Your task to perform on an android device: open app "Microsoft Authenticator" (install if not already installed) and enter user name: "Cornell@yahoo.com" and password: "bothersome" Image 0: 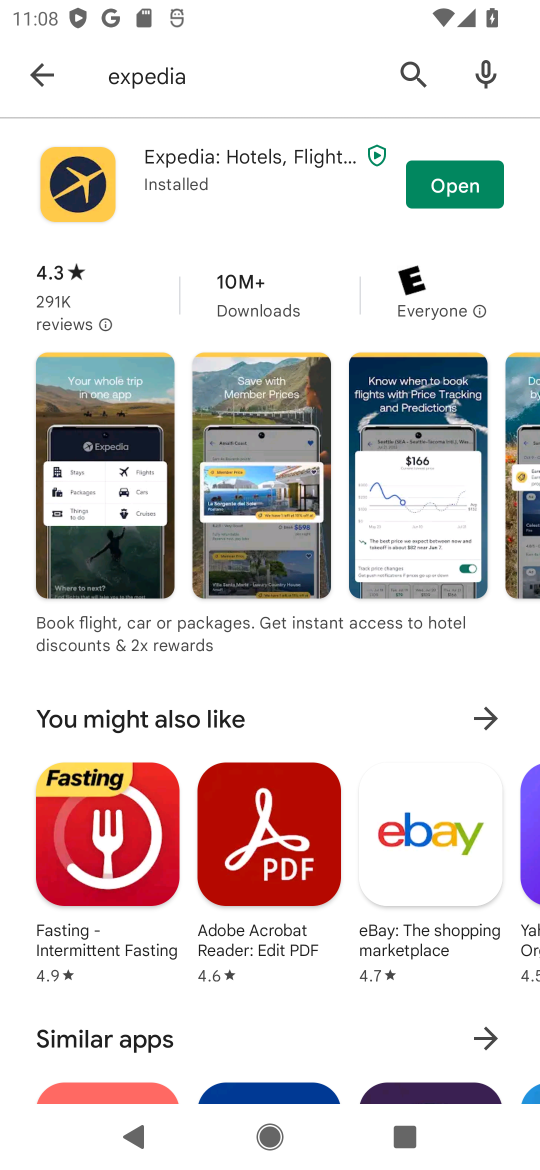
Step 0: click (404, 61)
Your task to perform on an android device: open app "Microsoft Authenticator" (install if not already installed) and enter user name: "Cornell@yahoo.com" and password: "bothersome" Image 1: 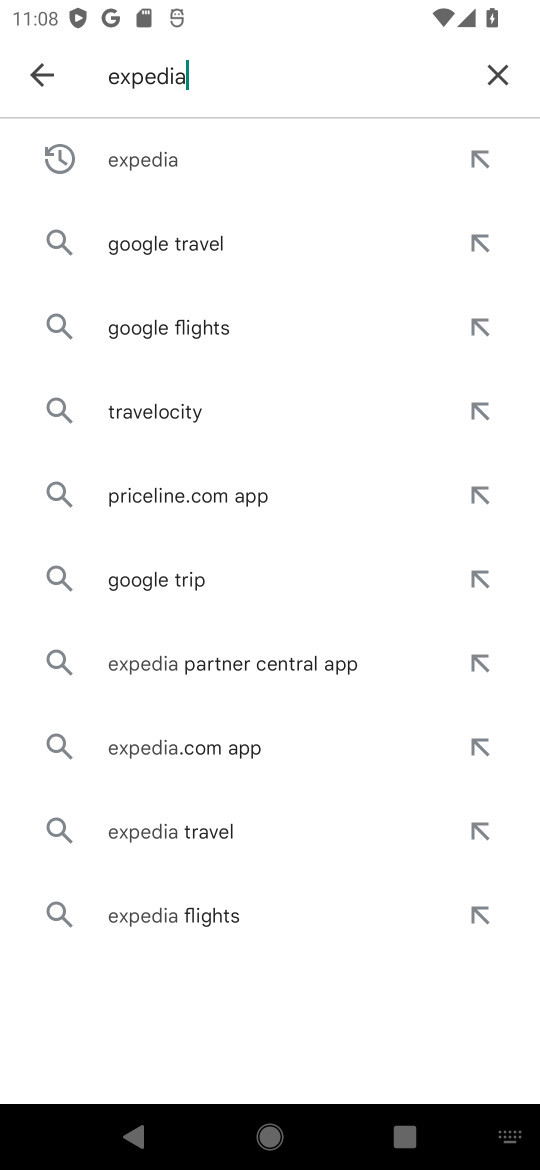
Step 1: click (512, 59)
Your task to perform on an android device: open app "Microsoft Authenticator" (install if not already installed) and enter user name: "Cornell@yahoo.com" and password: "bothersome" Image 2: 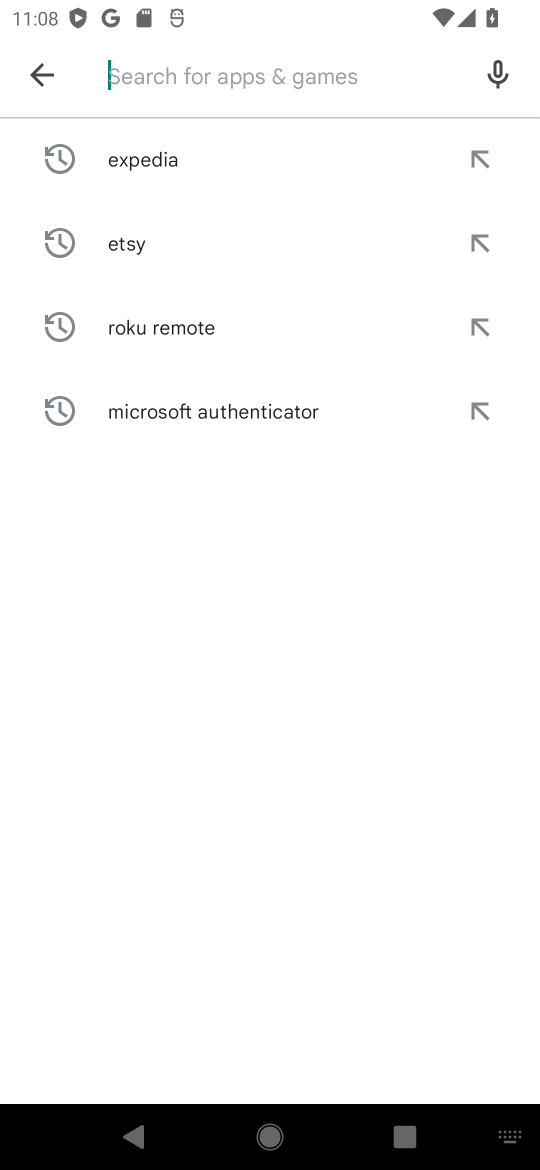
Step 2: click (166, 82)
Your task to perform on an android device: open app "Microsoft Authenticator" (install if not already installed) and enter user name: "Cornell@yahoo.com" and password: "bothersome" Image 3: 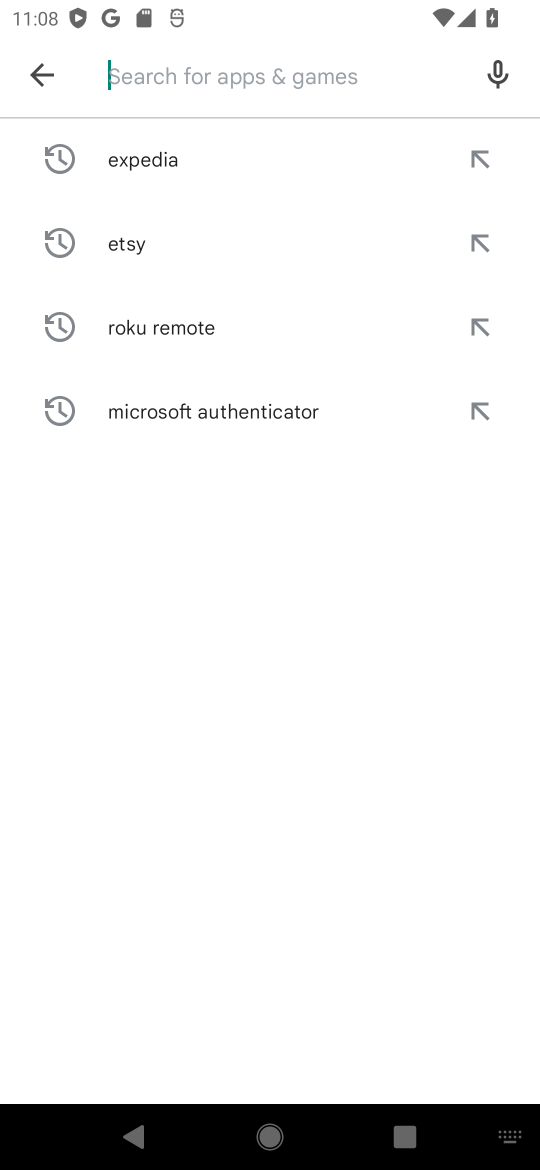
Step 3: type "Microsoft Authenticator"
Your task to perform on an android device: open app "Microsoft Authenticator" (install if not already installed) and enter user name: "Cornell@yahoo.com" and password: "bothersome" Image 4: 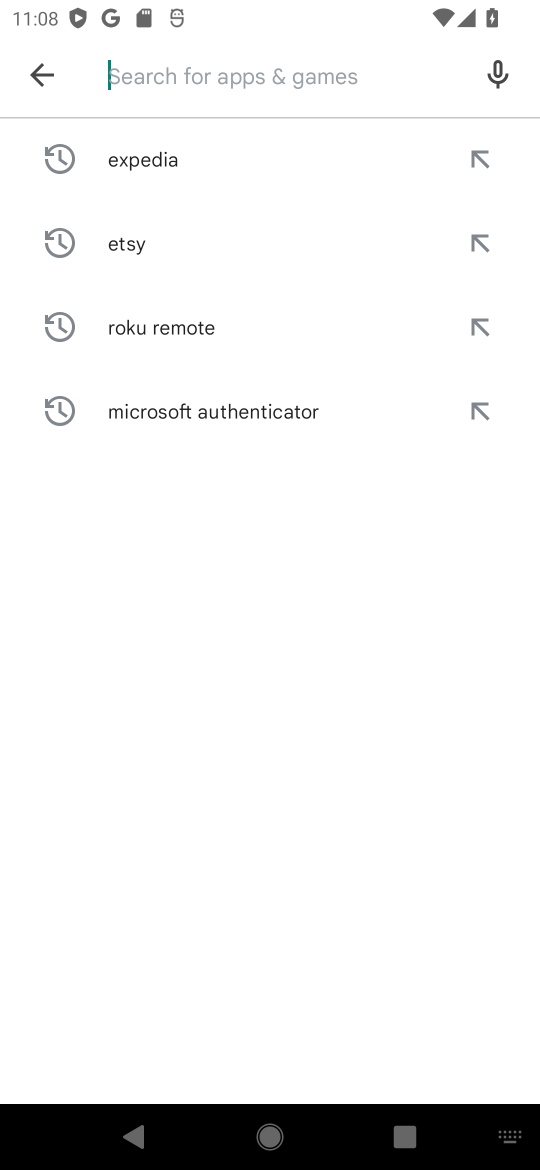
Step 4: click (251, 655)
Your task to perform on an android device: open app "Microsoft Authenticator" (install if not already installed) and enter user name: "Cornell@yahoo.com" and password: "bothersome" Image 5: 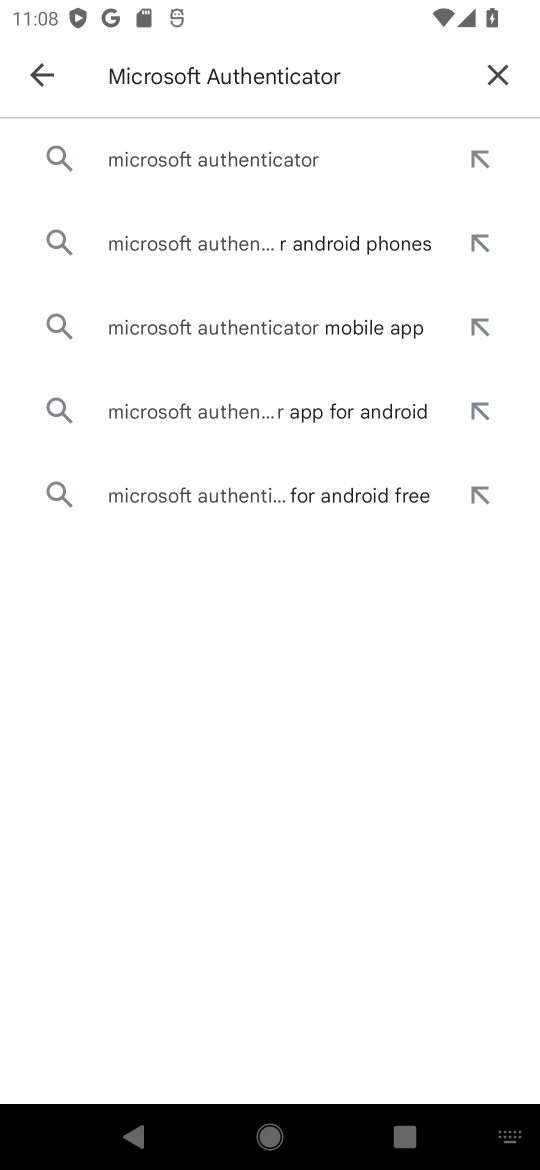
Step 5: click (197, 140)
Your task to perform on an android device: open app "Microsoft Authenticator" (install if not already installed) and enter user name: "Cornell@yahoo.com" and password: "bothersome" Image 6: 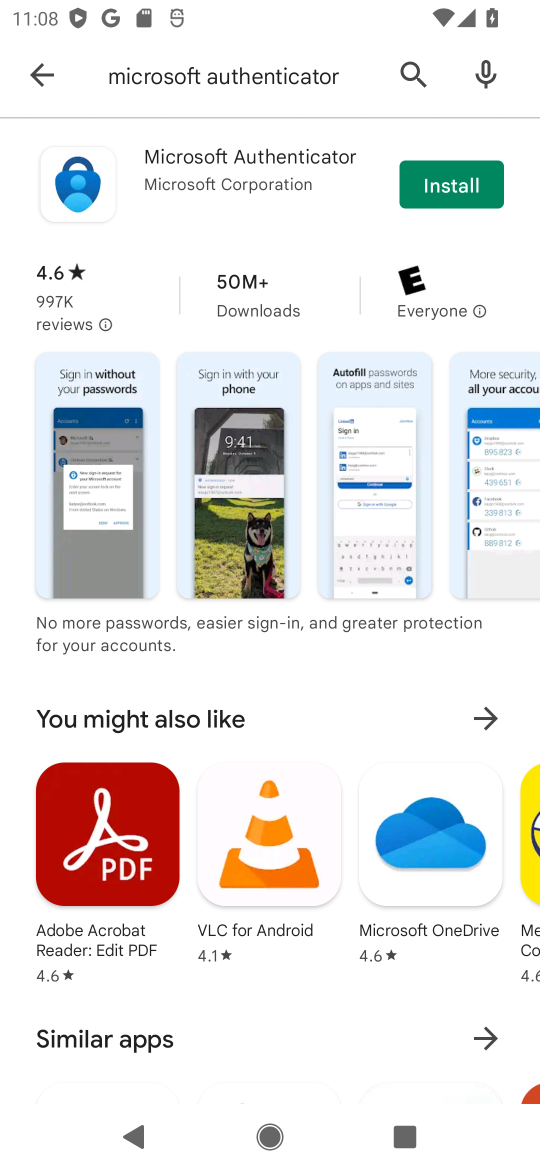
Step 6: click (429, 190)
Your task to perform on an android device: open app "Microsoft Authenticator" (install if not already installed) and enter user name: "Cornell@yahoo.com" and password: "bothersome" Image 7: 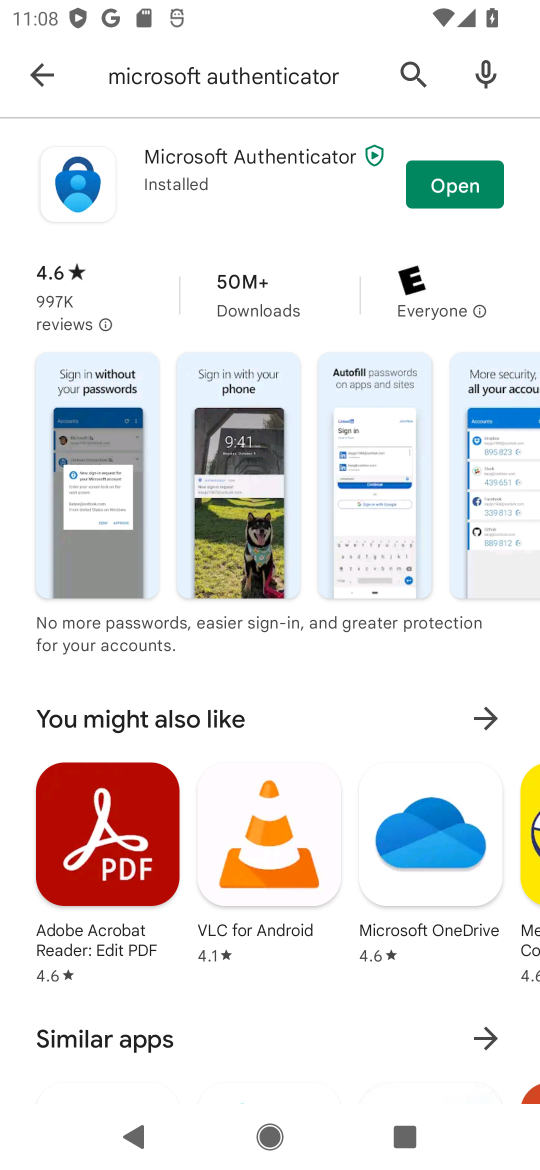
Step 7: click (454, 178)
Your task to perform on an android device: open app "Microsoft Authenticator" (install if not already installed) and enter user name: "Cornell@yahoo.com" and password: "bothersome" Image 8: 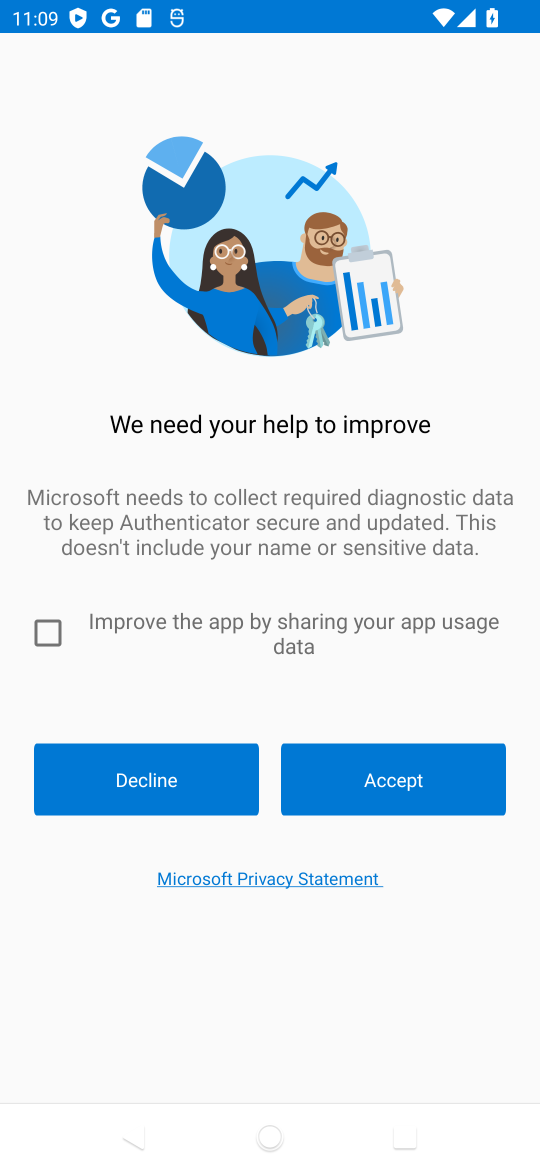
Step 8: click (27, 622)
Your task to perform on an android device: open app "Microsoft Authenticator" (install if not already installed) and enter user name: "Cornell@yahoo.com" and password: "bothersome" Image 9: 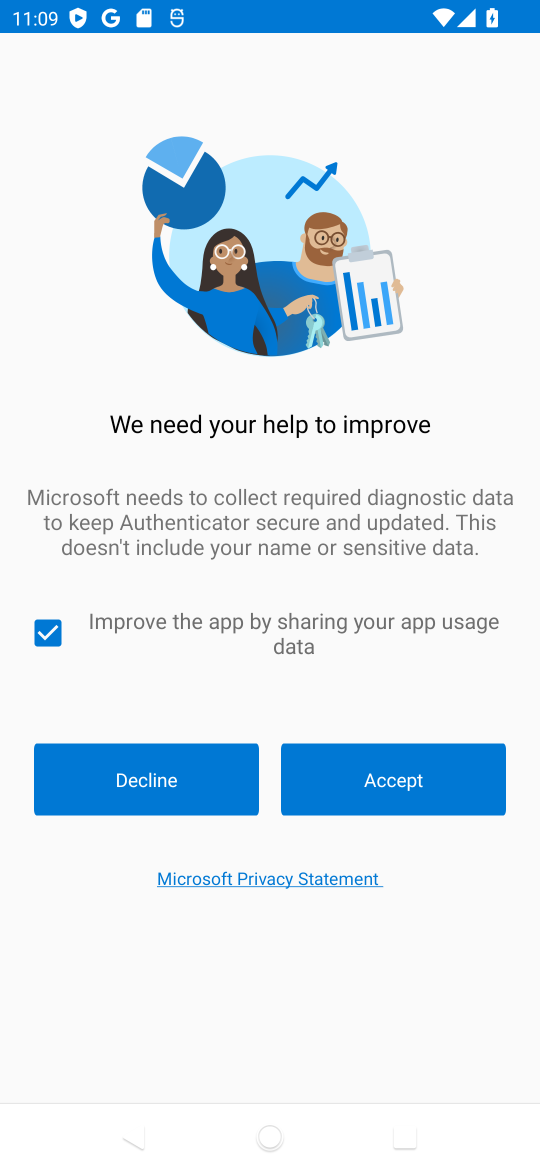
Step 9: click (376, 776)
Your task to perform on an android device: open app "Microsoft Authenticator" (install if not already installed) and enter user name: "Cornell@yahoo.com" and password: "bothersome" Image 10: 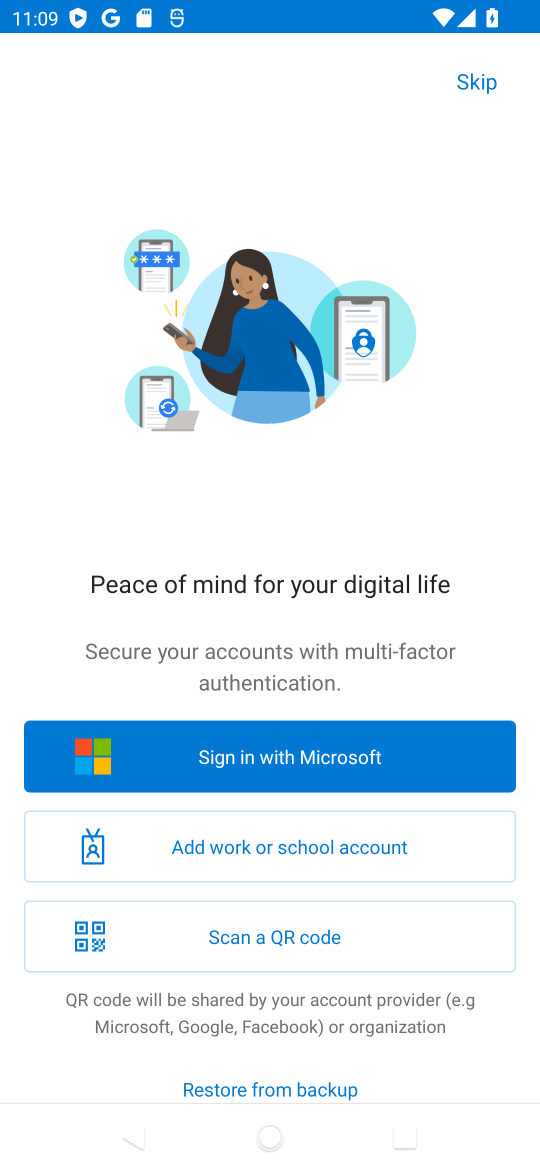
Step 10: click (376, 776)
Your task to perform on an android device: open app "Microsoft Authenticator" (install if not already installed) and enter user name: "Cornell@yahoo.com" and password: "bothersome" Image 11: 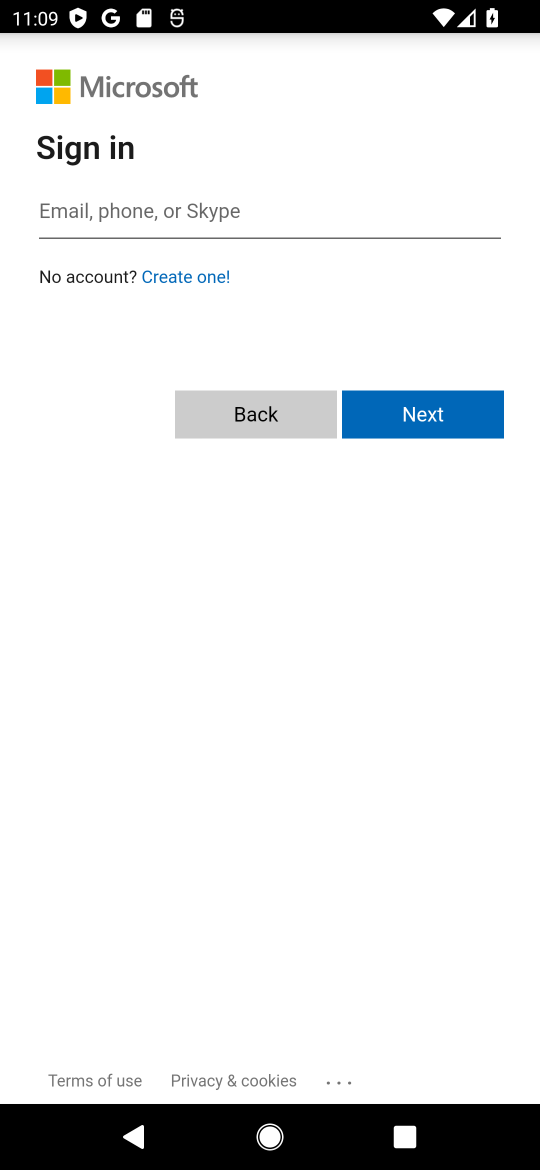
Step 11: click (257, 223)
Your task to perform on an android device: open app "Microsoft Authenticator" (install if not already installed) and enter user name: "Cornell@yahoo.com" and password: "bothersome" Image 12: 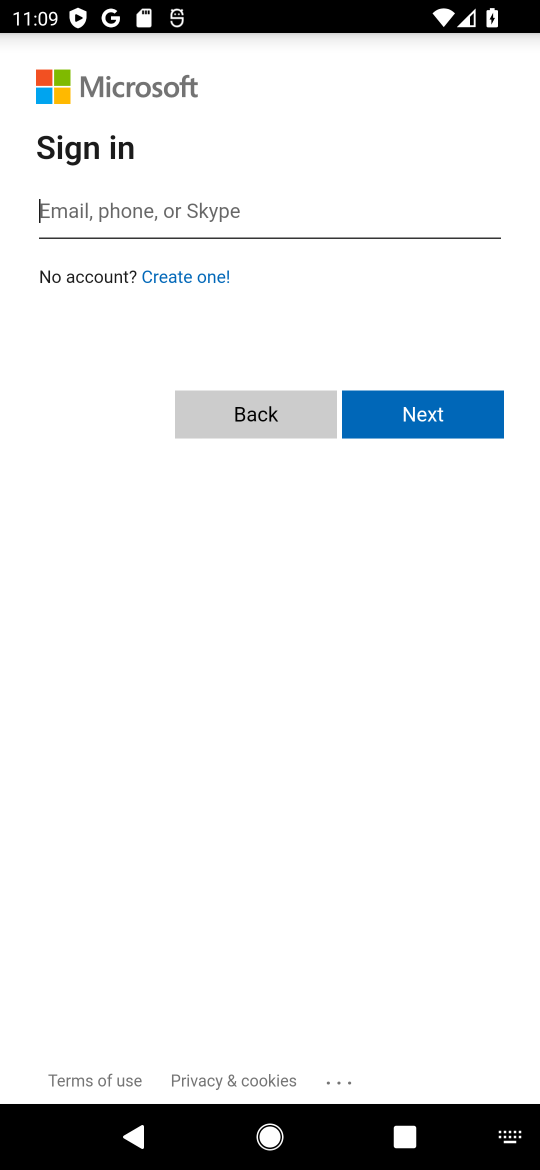
Step 12: type "Cornell@yahoo.com"
Your task to perform on an android device: open app "Microsoft Authenticator" (install if not already installed) and enter user name: "Cornell@yahoo.com" and password: "bothersome" Image 13: 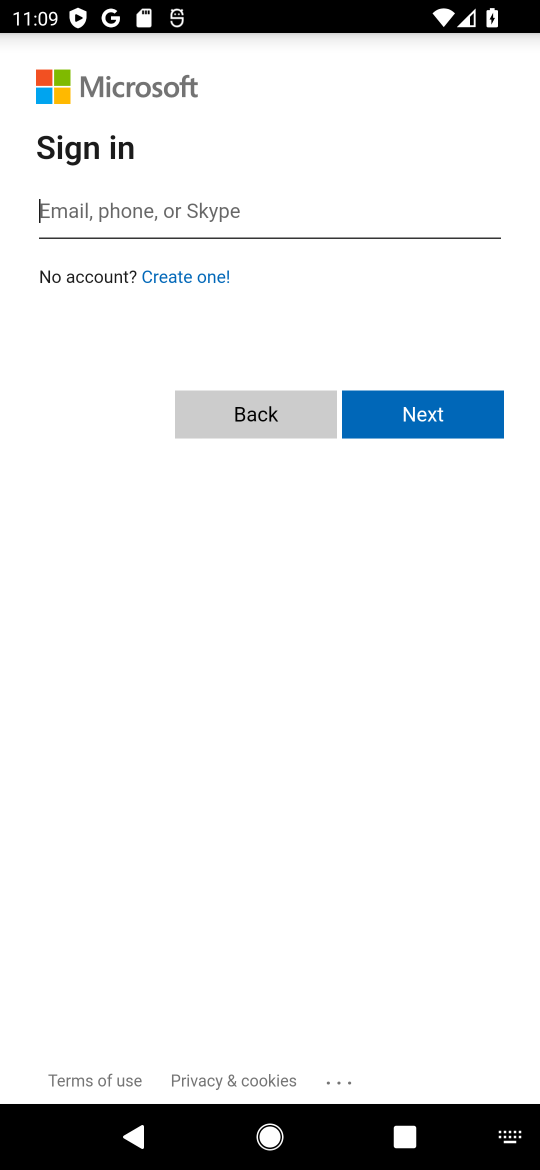
Step 13: click (276, 808)
Your task to perform on an android device: open app "Microsoft Authenticator" (install if not already installed) and enter user name: "Cornell@yahoo.com" and password: "bothersome" Image 14: 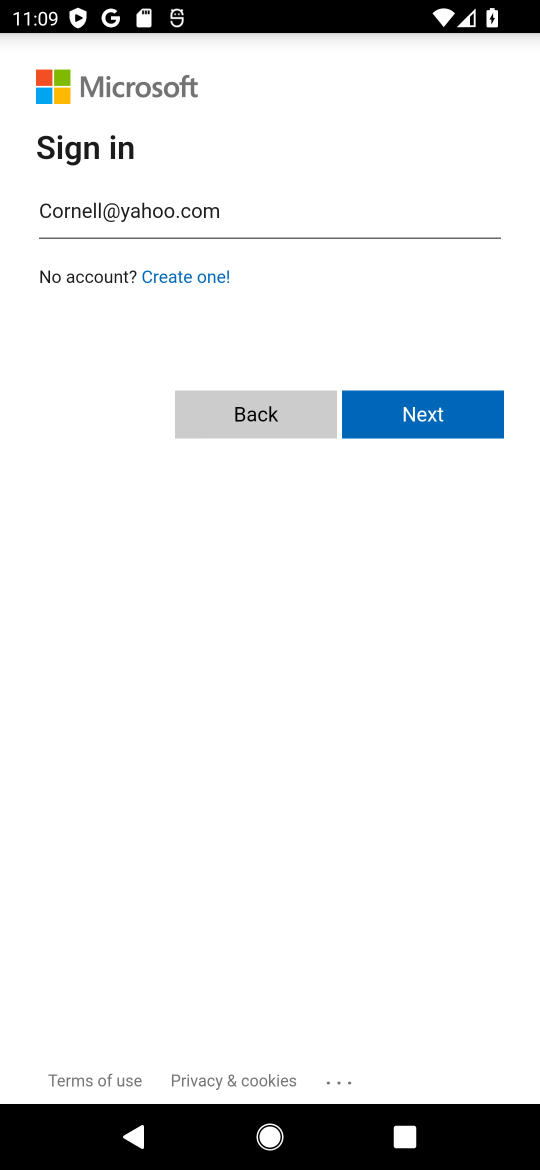
Step 14: click (433, 399)
Your task to perform on an android device: open app "Microsoft Authenticator" (install if not already installed) and enter user name: "Cornell@yahoo.com" and password: "bothersome" Image 15: 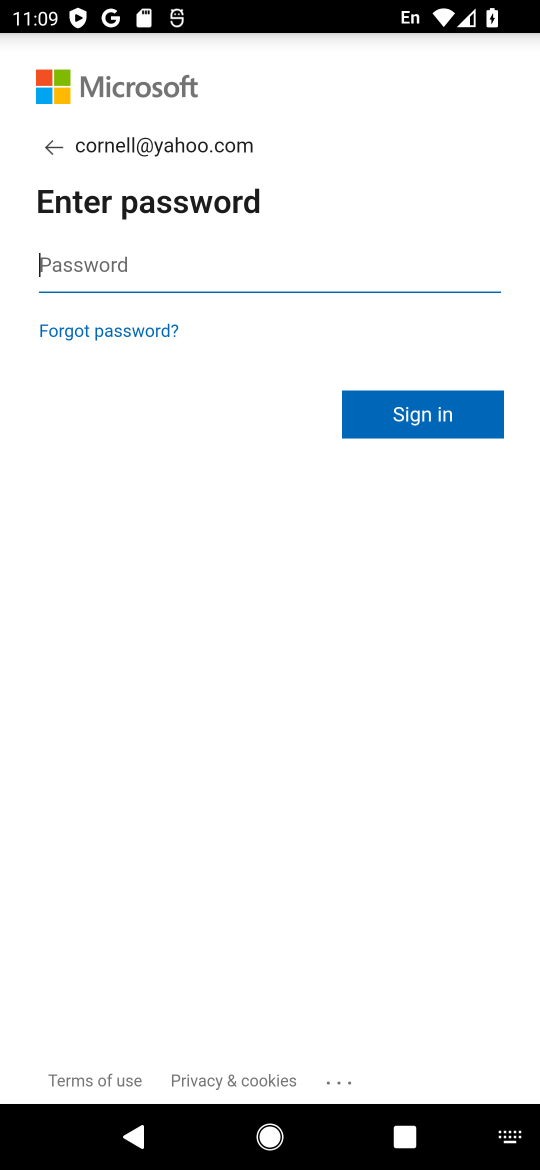
Step 15: click (134, 279)
Your task to perform on an android device: open app "Microsoft Authenticator" (install if not already installed) and enter user name: "Cornell@yahoo.com" and password: "bothersome" Image 16: 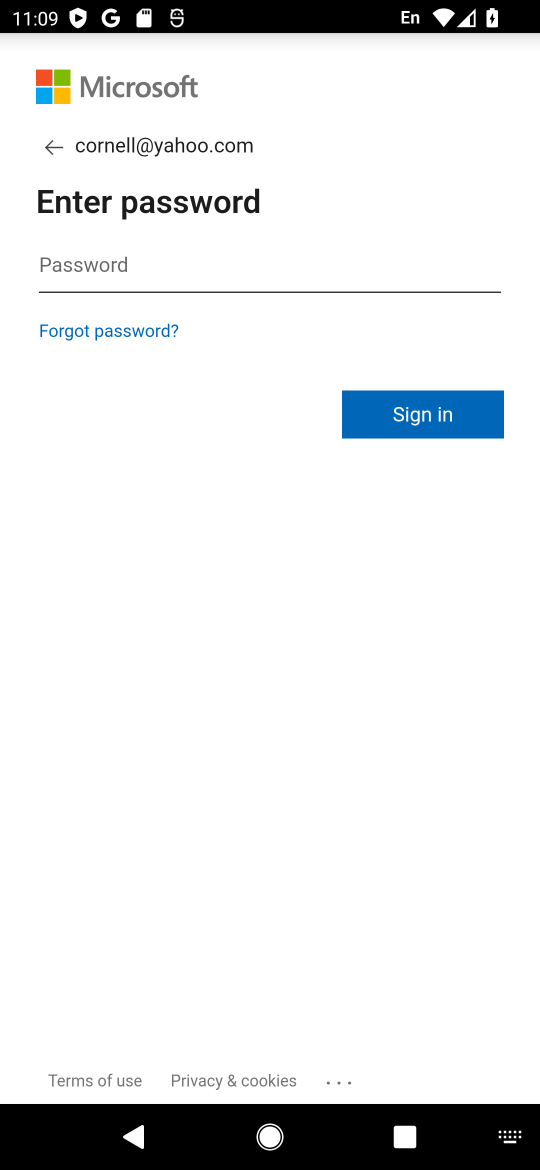
Step 16: type "bothersome"
Your task to perform on an android device: open app "Microsoft Authenticator" (install if not already installed) and enter user name: "Cornell@yahoo.com" and password: "bothersome" Image 17: 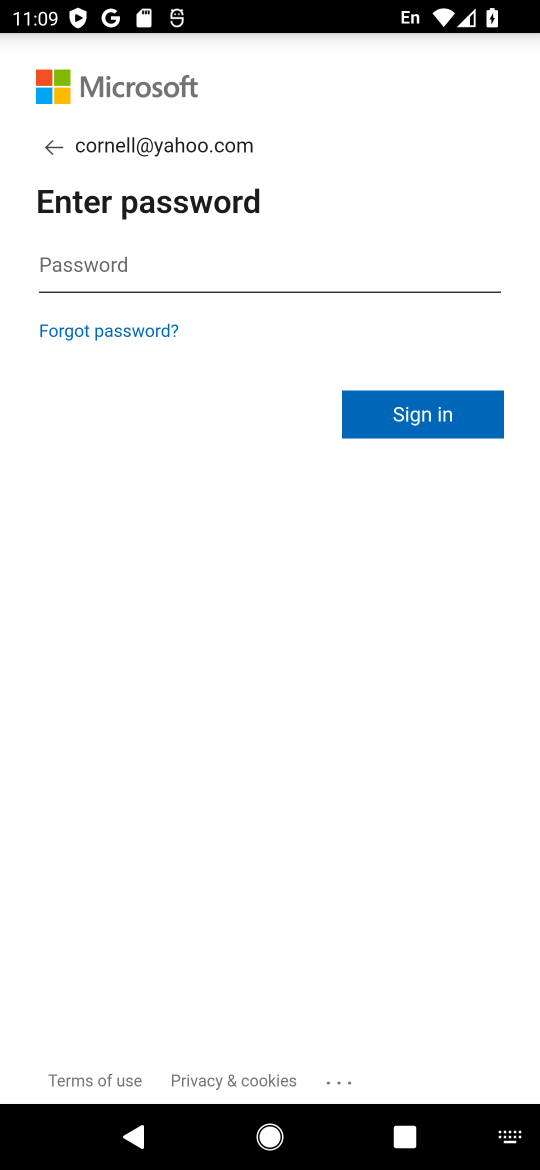
Step 17: click (147, 608)
Your task to perform on an android device: open app "Microsoft Authenticator" (install if not already installed) and enter user name: "Cornell@yahoo.com" and password: "bothersome" Image 18: 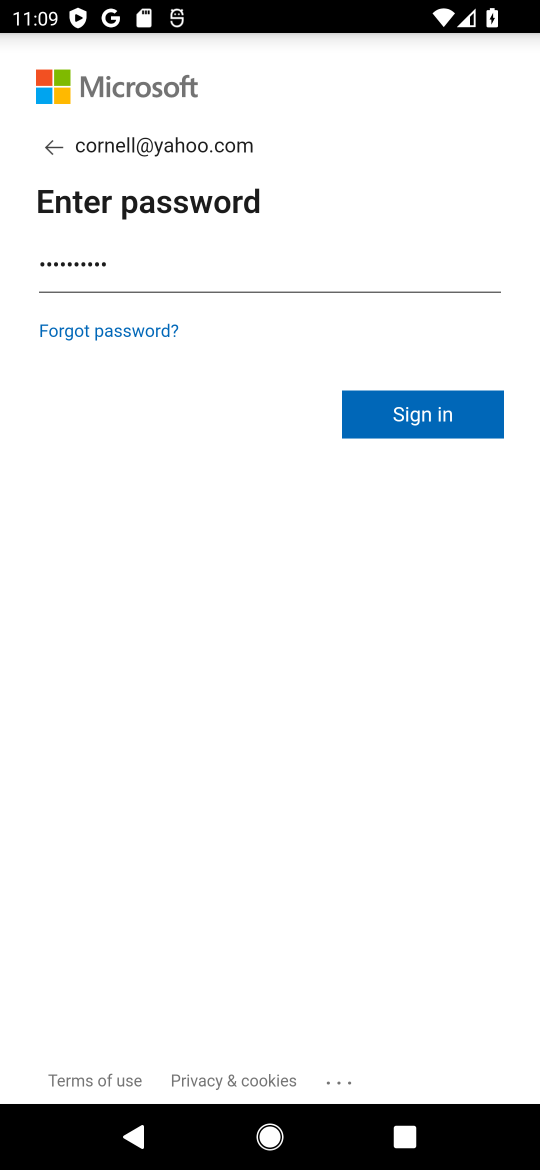
Step 18: task complete